Your task to perform on an android device: turn off sleep mode Image 0: 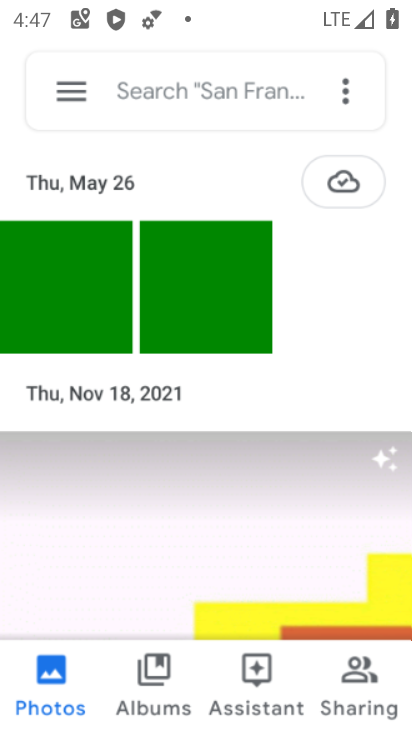
Step 0: press home button
Your task to perform on an android device: turn off sleep mode Image 1: 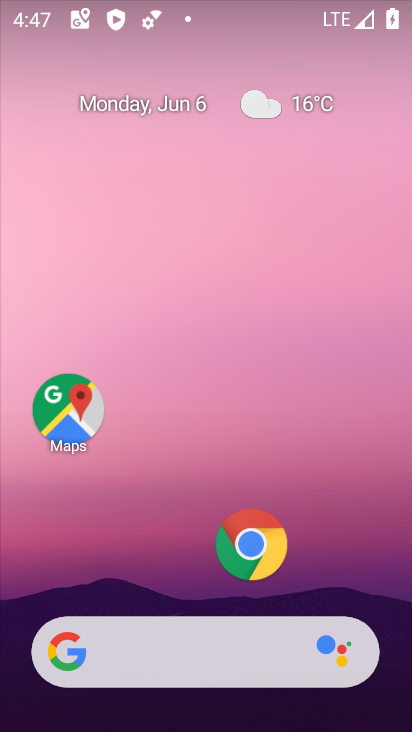
Step 1: drag from (197, 599) to (212, 44)
Your task to perform on an android device: turn off sleep mode Image 2: 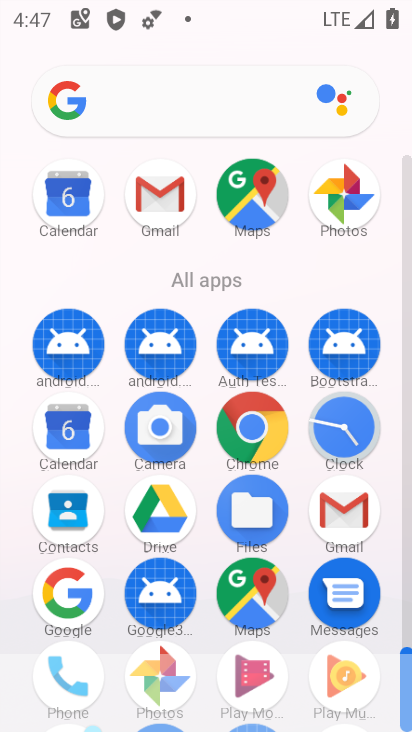
Step 2: drag from (284, 642) to (281, 97)
Your task to perform on an android device: turn off sleep mode Image 3: 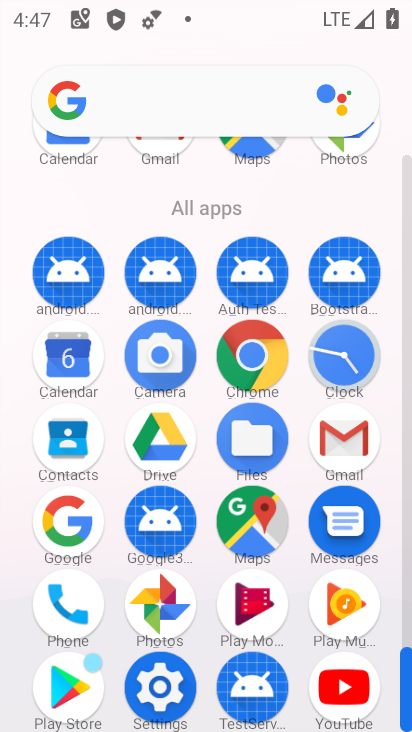
Step 3: click (161, 687)
Your task to perform on an android device: turn off sleep mode Image 4: 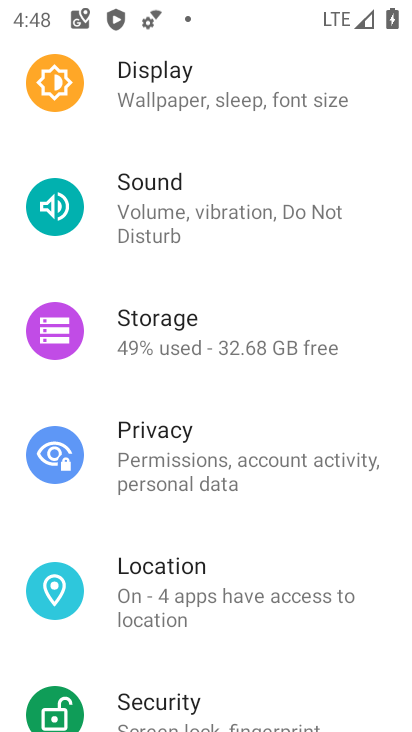
Step 4: click (204, 93)
Your task to perform on an android device: turn off sleep mode Image 5: 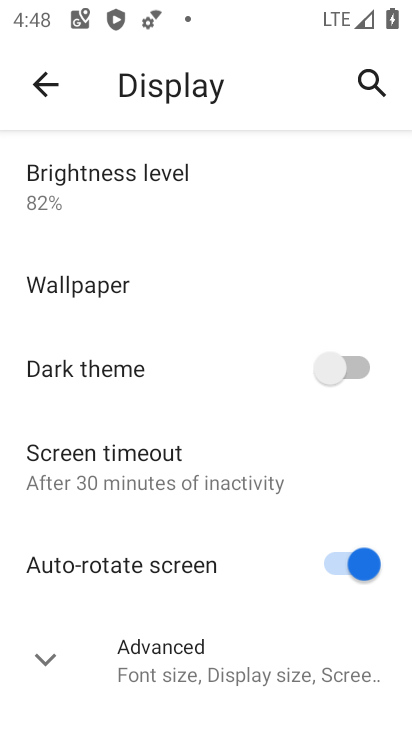
Step 5: click (32, 655)
Your task to perform on an android device: turn off sleep mode Image 6: 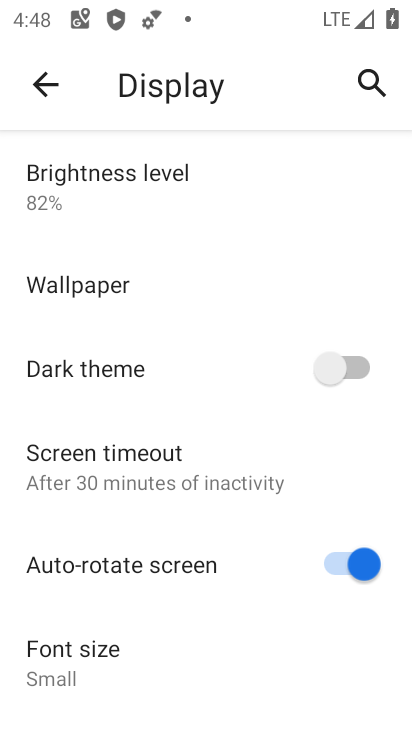
Step 6: task complete